Your task to perform on an android device: What's on my calendar tomorrow? Image 0: 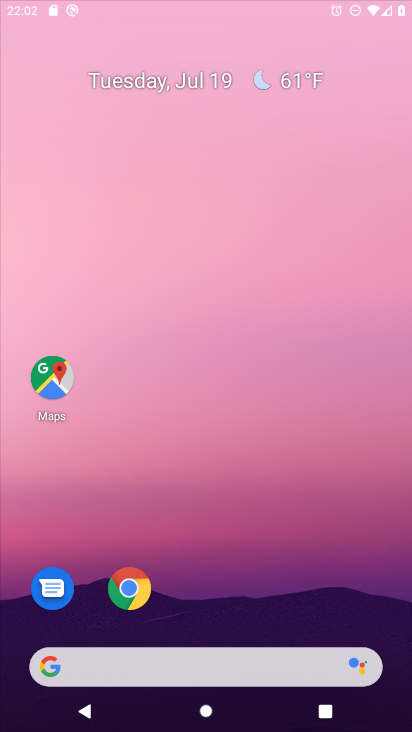
Step 0: press home button
Your task to perform on an android device: What's on my calendar tomorrow? Image 1: 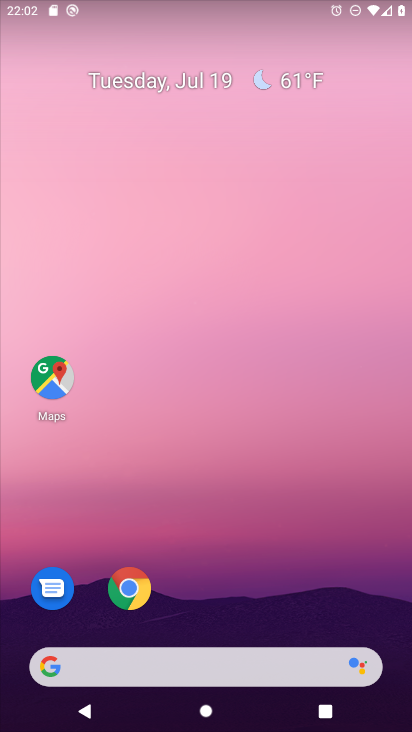
Step 1: drag from (212, 636) to (218, 23)
Your task to perform on an android device: What's on my calendar tomorrow? Image 2: 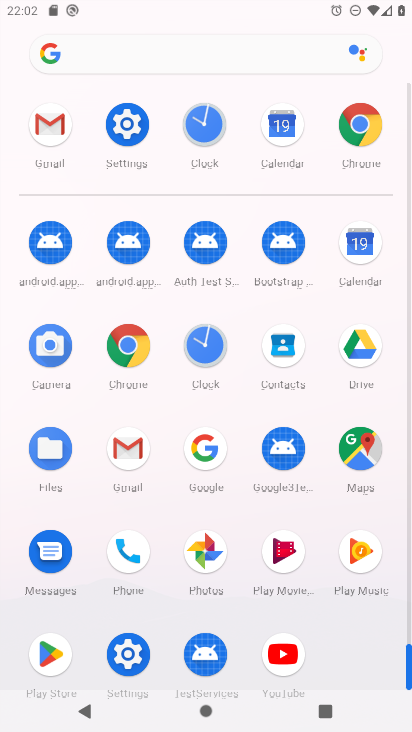
Step 2: click (357, 240)
Your task to perform on an android device: What's on my calendar tomorrow? Image 3: 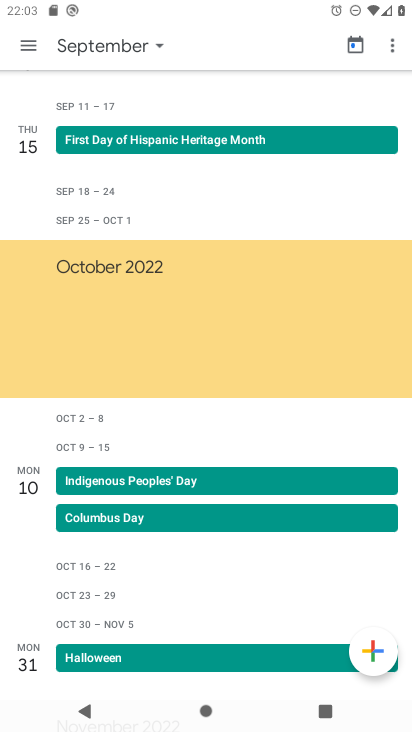
Step 3: click (157, 42)
Your task to perform on an android device: What's on my calendar tomorrow? Image 4: 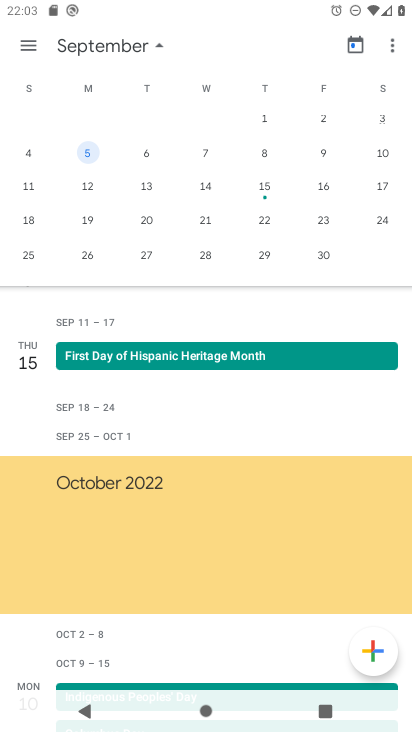
Step 4: drag from (28, 202) to (408, 215)
Your task to perform on an android device: What's on my calendar tomorrow? Image 5: 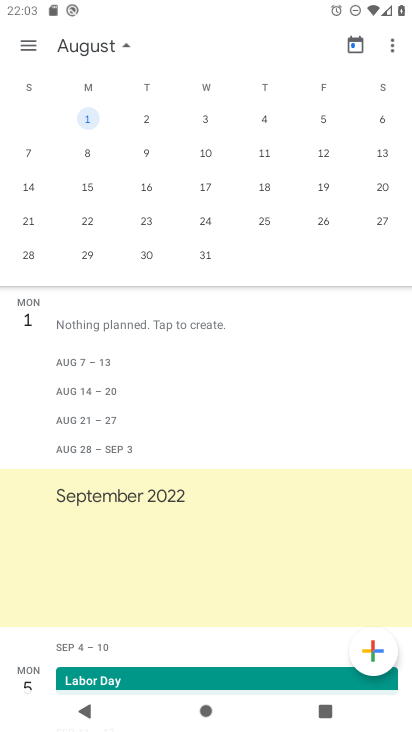
Step 5: drag from (32, 193) to (397, 214)
Your task to perform on an android device: What's on my calendar tomorrow? Image 6: 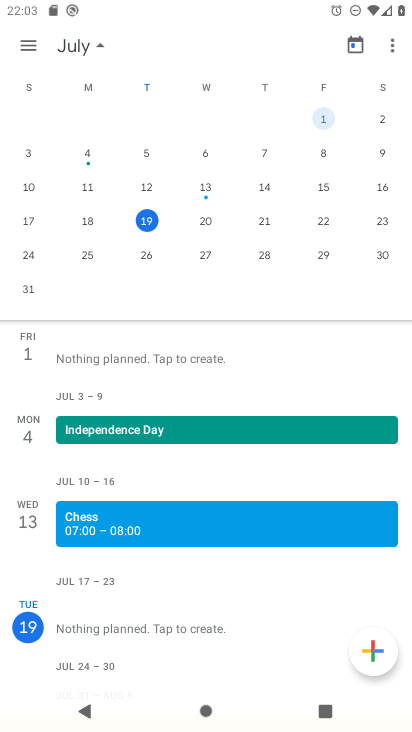
Step 6: click (203, 217)
Your task to perform on an android device: What's on my calendar tomorrow? Image 7: 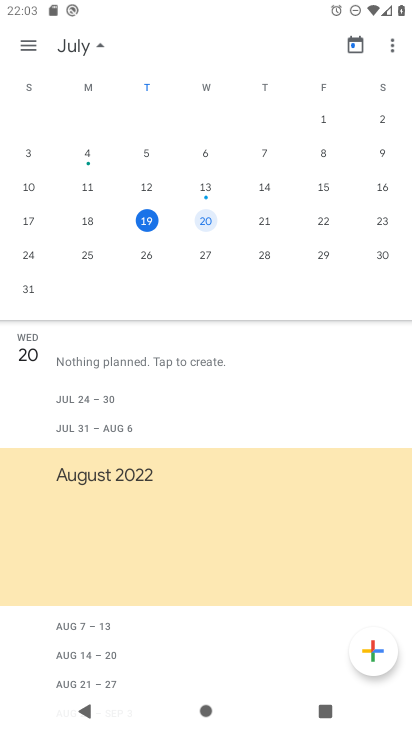
Step 7: click (36, 350)
Your task to perform on an android device: What's on my calendar tomorrow? Image 8: 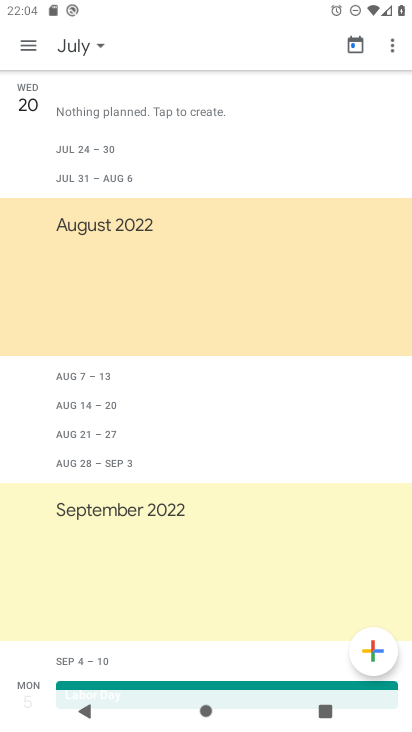
Step 8: task complete